Your task to perform on an android device: delete location history Image 0: 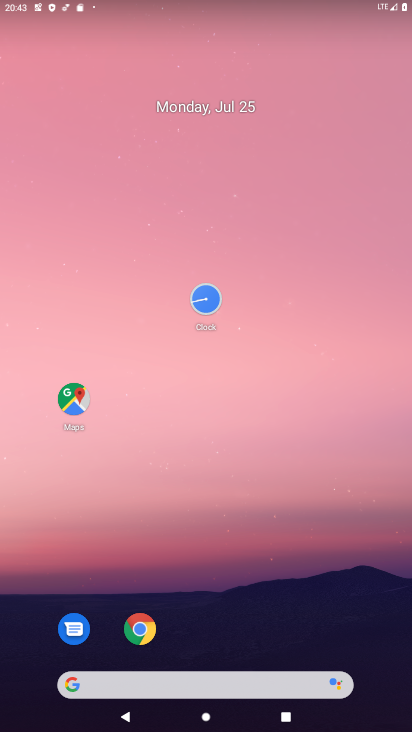
Step 0: drag from (223, 624) to (206, 15)
Your task to perform on an android device: delete location history Image 1: 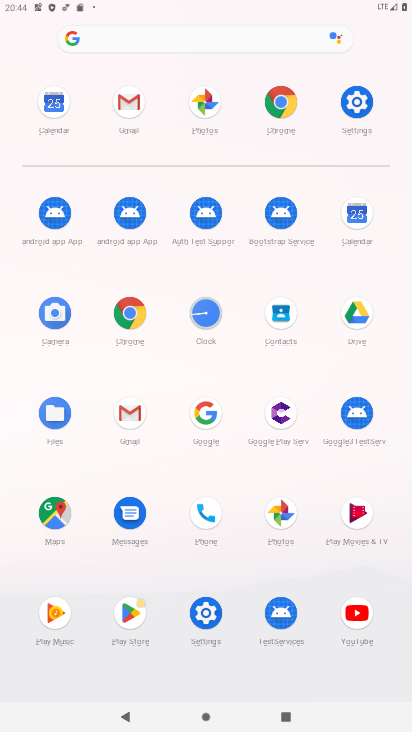
Step 1: click (65, 504)
Your task to perform on an android device: delete location history Image 2: 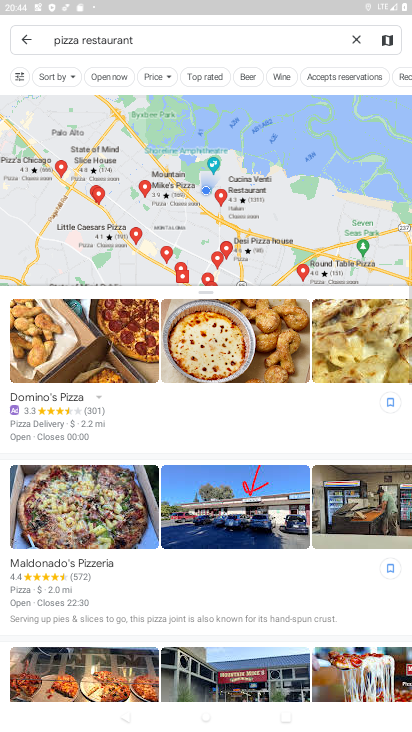
Step 2: click (24, 33)
Your task to perform on an android device: delete location history Image 3: 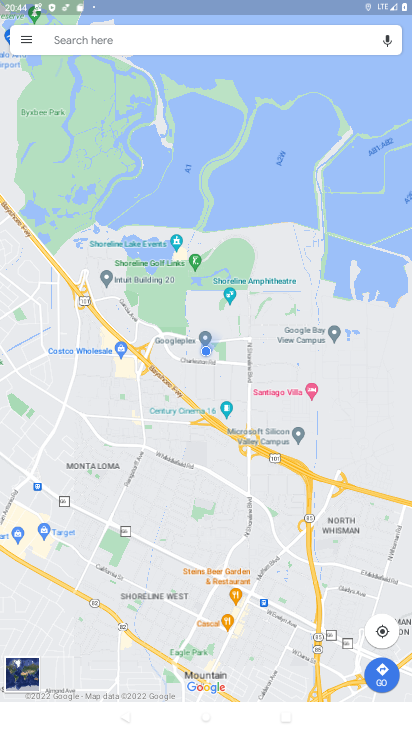
Step 3: click (23, 40)
Your task to perform on an android device: delete location history Image 4: 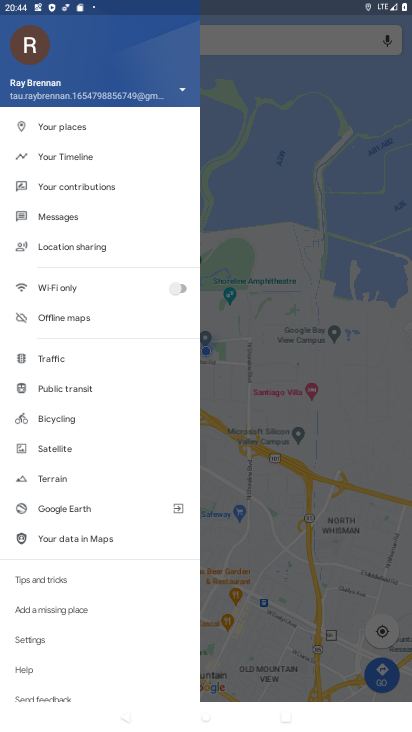
Step 4: click (63, 160)
Your task to perform on an android device: delete location history Image 5: 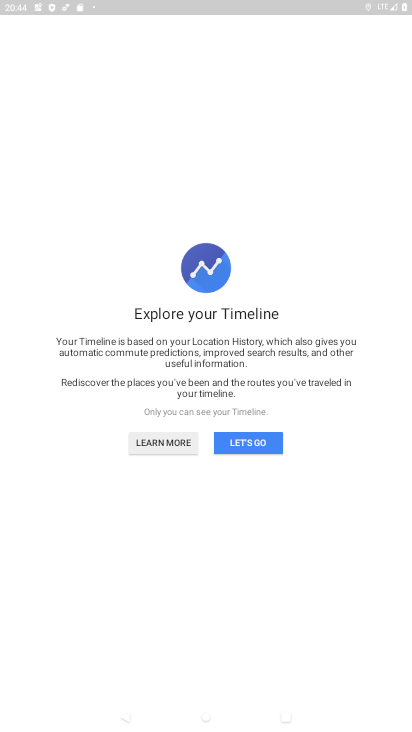
Step 5: click (257, 445)
Your task to perform on an android device: delete location history Image 6: 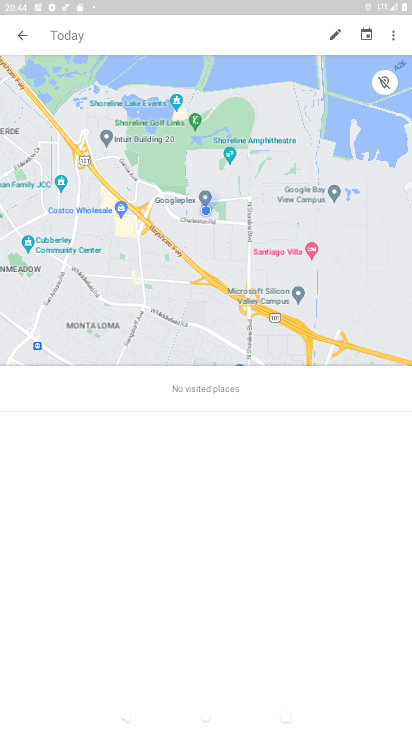
Step 6: click (395, 37)
Your task to perform on an android device: delete location history Image 7: 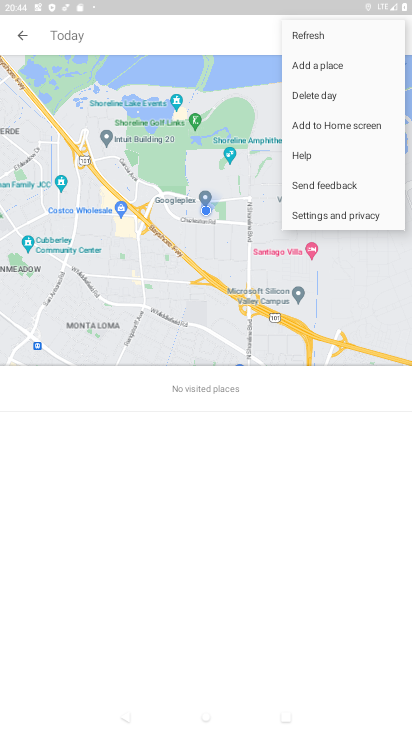
Step 7: click (332, 219)
Your task to perform on an android device: delete location history Image 8: 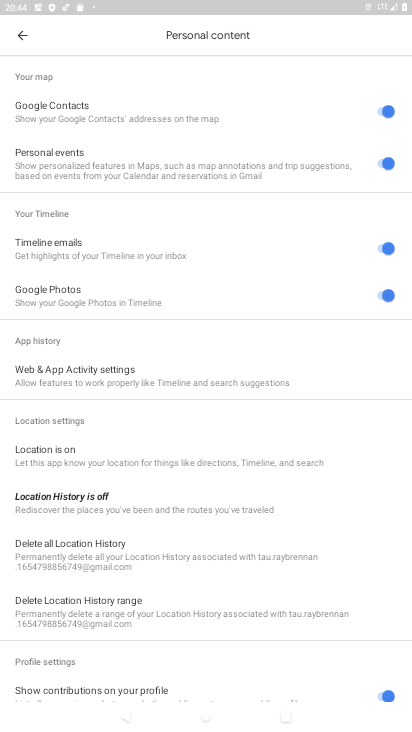
Step 8: click (108, 561)
Your task to perform on an android device: delete location history Image 9: 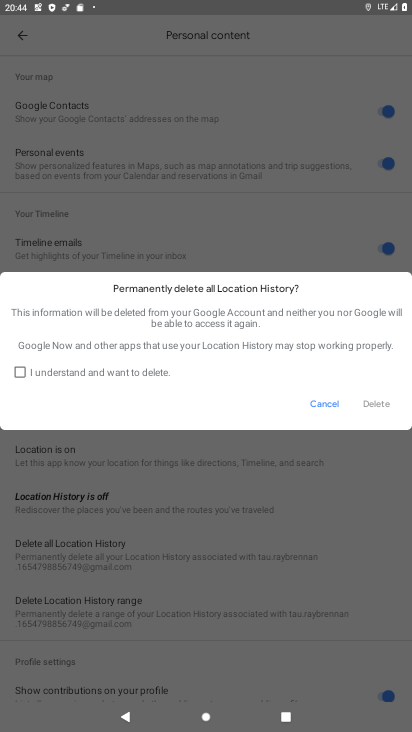
Step 9: click (34, 378)
Your task to perform on an android device: delete location history Image 10: 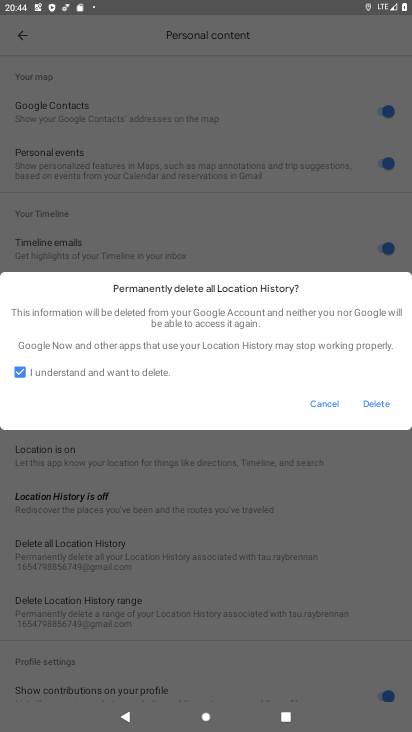
Step 10: click (378, 406)
Your task to perform on an android device: delete location history Image 11: 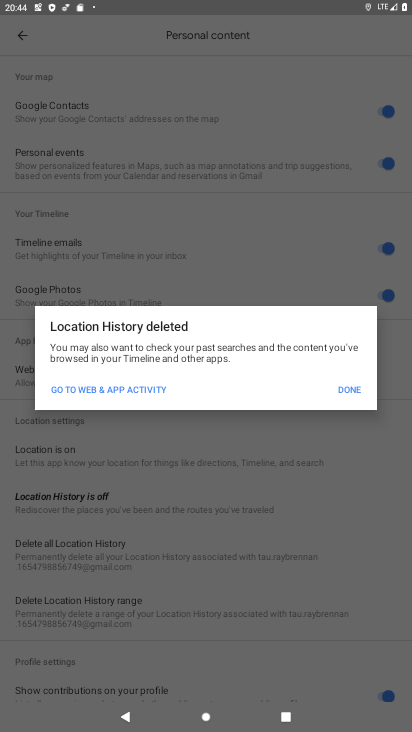
Step 11: click (346, 392)
Your task to perform on an android device: delete location history Image 12: 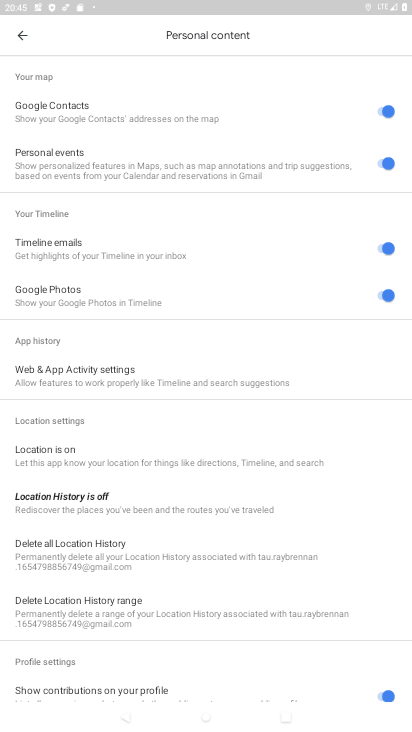
Step 12: drag from (134, 523) to (183, 253)
Your task to perform on an android device: delete location history Image 13: 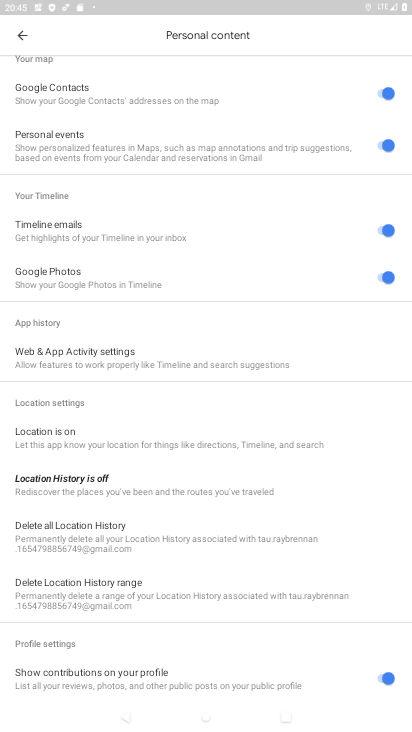
Step 13: click (139, 544)
Your task to perform on an android device: delete location history Image 14: 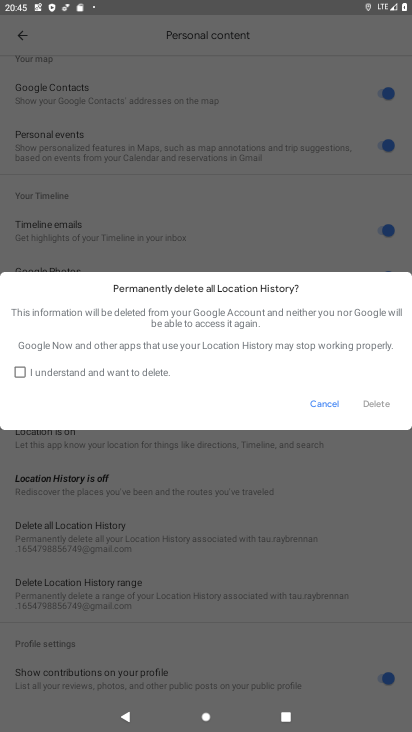
Step 14: click (122, 363)
Your task to perform on an android device: delete location history Image 15: 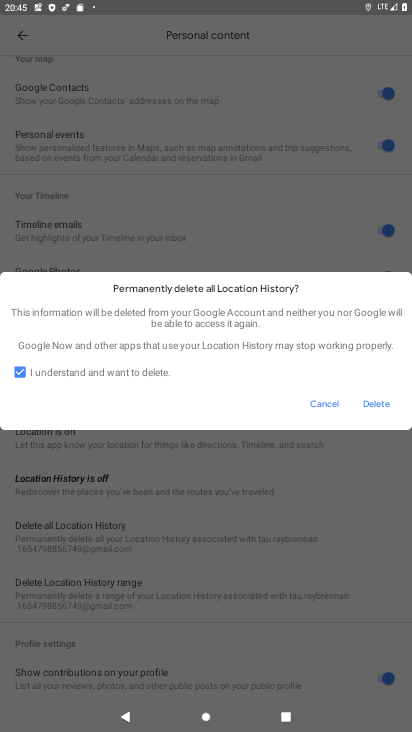
Step 15: click (369, 400)
Your task to perform on an android device: delete location history Image 16: 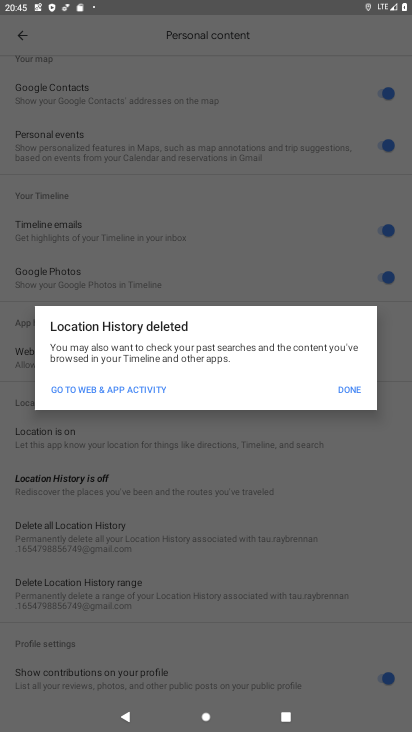
Step 16: task complete